Your task to perform on an android device: turn off location Image 0: 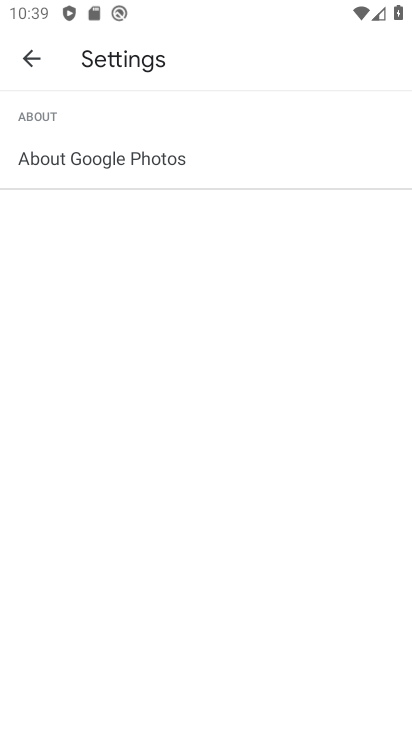
Step 0: press home button
Your task to perform on an android device: turn off location Image 1: 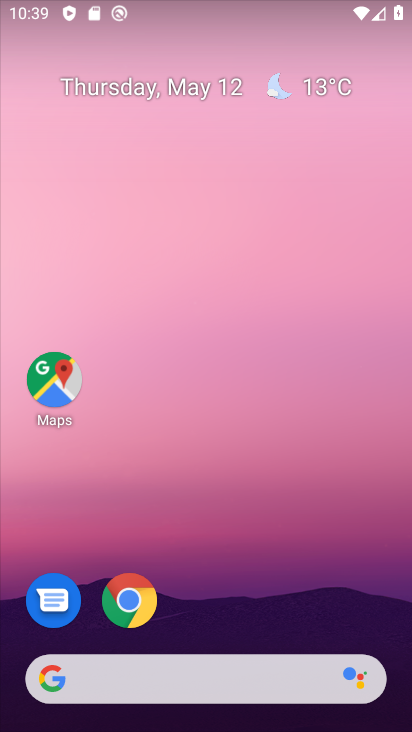
Step 1: drag from (381, 624) to (312, 171)
Your task to perform on an android device: turn off location Image 2: 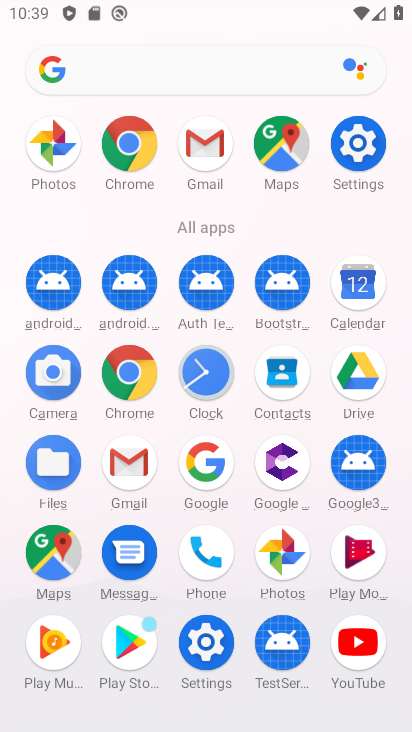
Step 2: click (206, 644)
Your task to perform on an android device: turn off location Image 3: 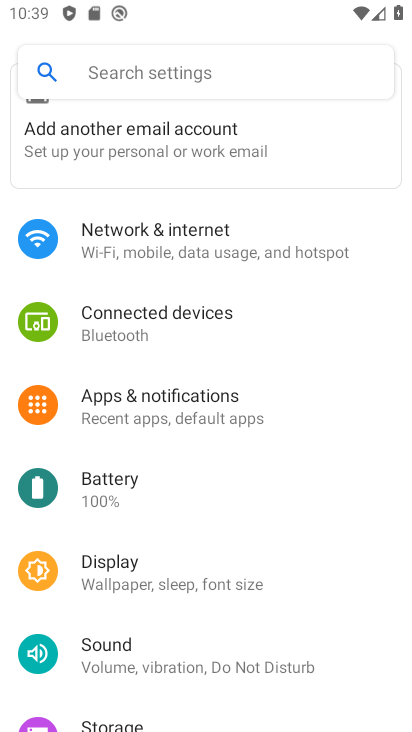
Step 3: drag from (346, 632) to (324, 327)
Your task to perform on an android device: turn off location Image 4: 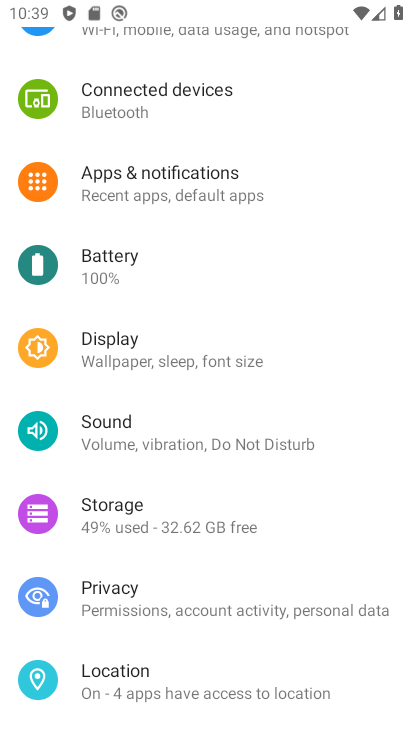
Step 4: click (145, 670)
Your task to perform on an android device: turn off location Image 5: 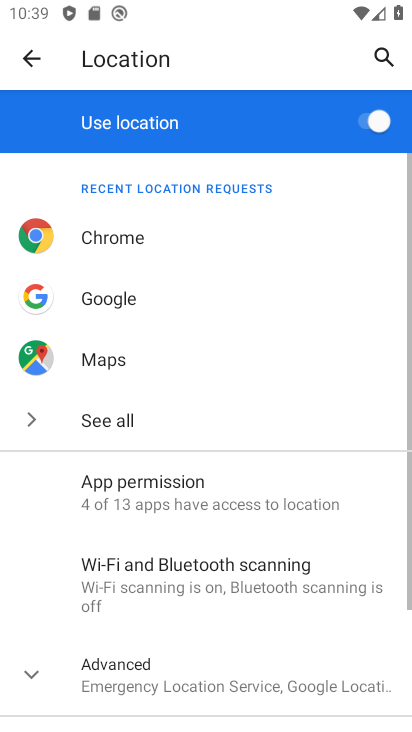
Step 5: click (364, 115)
Your task to perform on an android device: turn off location Image 6: 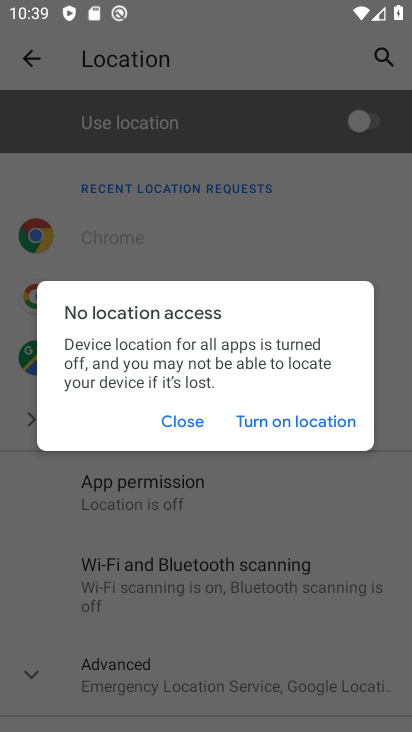
Step 6: task complete